Your task to perform on an android device: Do I have any events this weekend? Image 0: 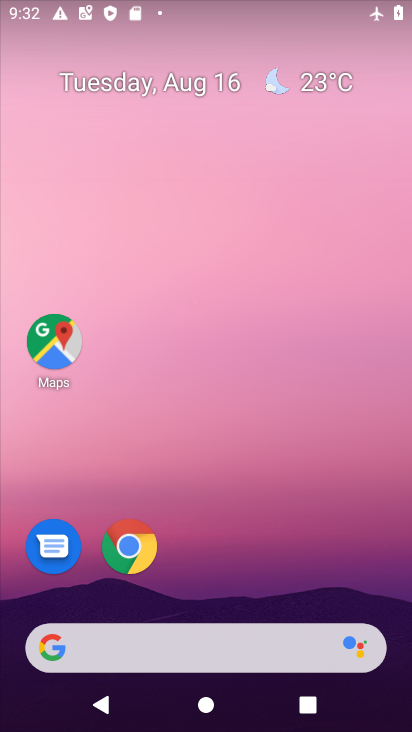
Step 0: drag from (227, 546) to (270, 12)
Your task to perform on an android device: Do I have any events this weekend? Image 1: 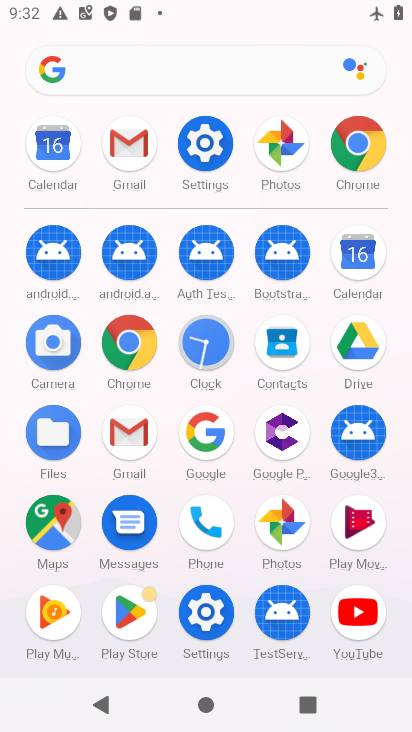
Step 1: click (55, 145)
Your task to perform on an android device: Do I have any events this weekend? Image 2: 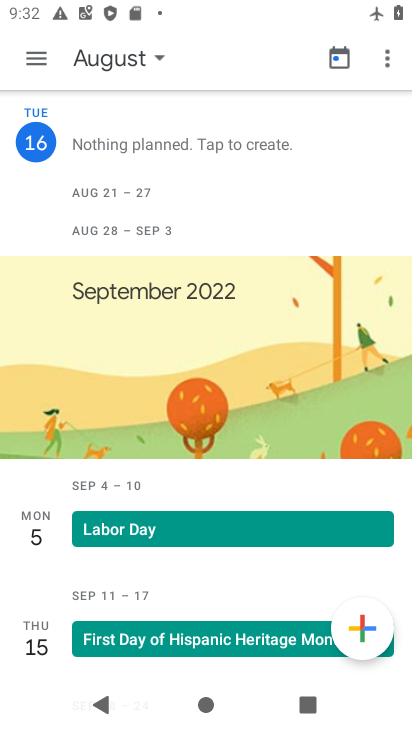
Step 2: click (38, 58)
Your task to perform on an android device: Do I have any events this weekend? Image 3: 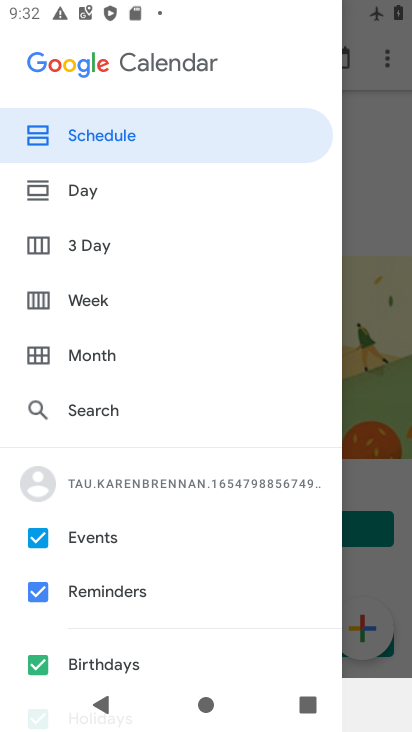
Step 3: click (42, 305)
Your task to perform on an android device: Do I have any events this weekend? Image 4: 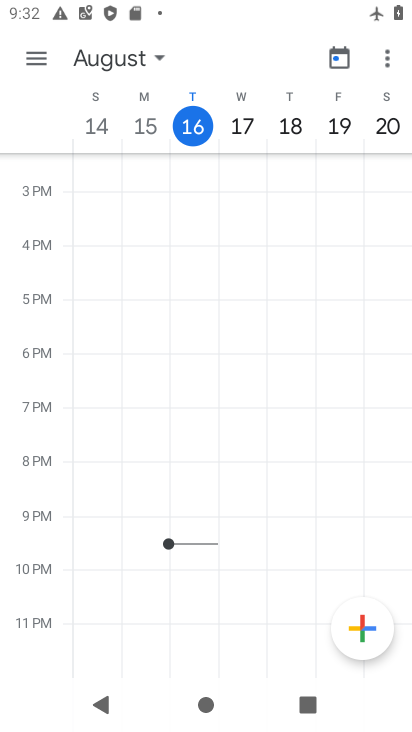
Step 4: click (385, 120)
Your task to perform on an android device: Do I have any events this weekend? Image 5: 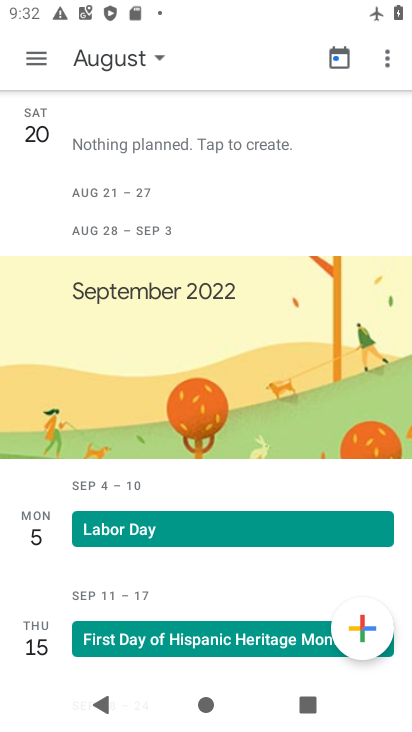
Step 5: task complete